Your task to perform on an android device: Go to network settings Image 0: 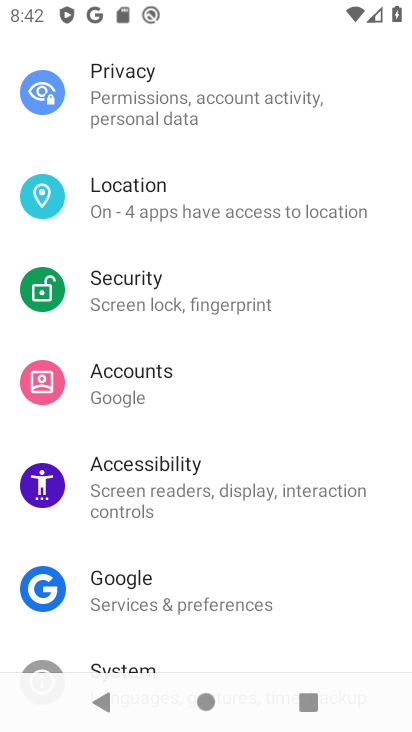
Step 0: drag from (192, 183) to (139, 609)
Your task to perform on an android device: Go to network settings Image 1: 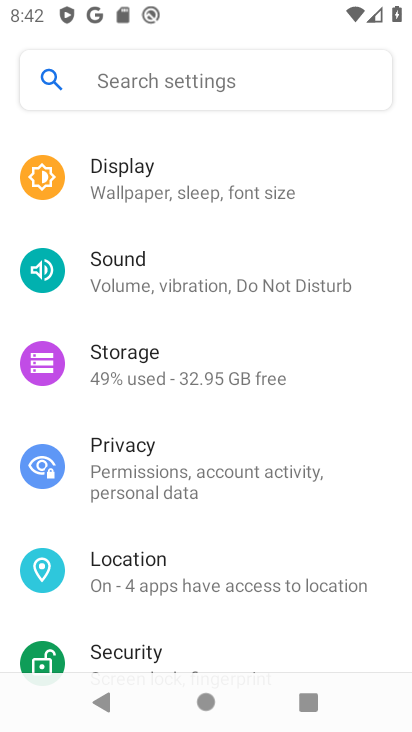
Step 1: click (186, 215)
Your task to perform on an android device: Go to network settings Image 2: 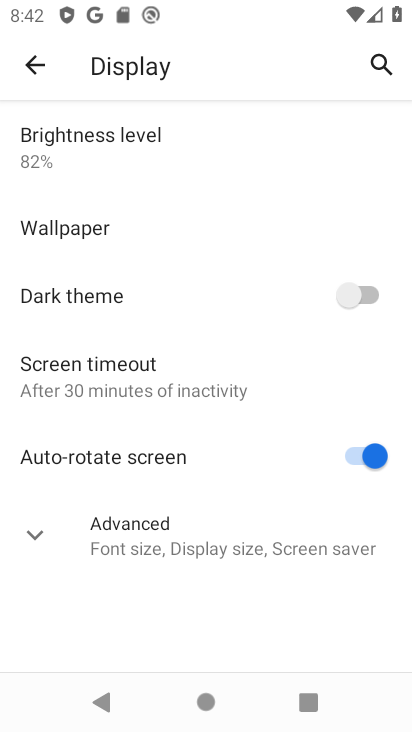
Step 2: drag from (184, 273) to (184, 308)
Your task to perform on an android device: Go to network settings Image 3: 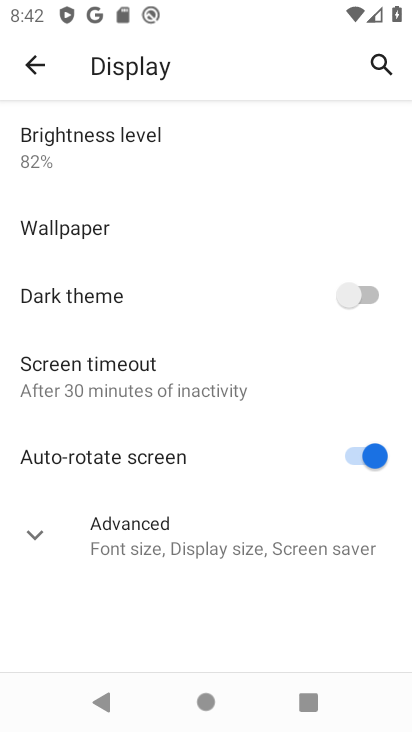
Step 3: click (20, 69)
Your task to perform on an android device: Go to network settings Image 4: 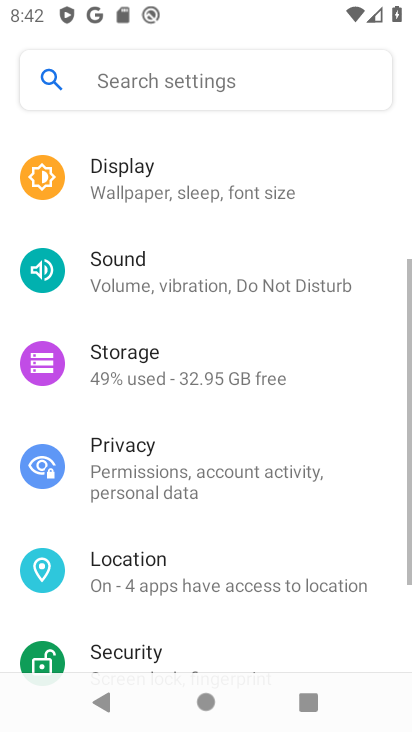
Step 4: drag from (237, 198) to (224, 372)
Your task to perform on an android device: Go to network settings Image 5: 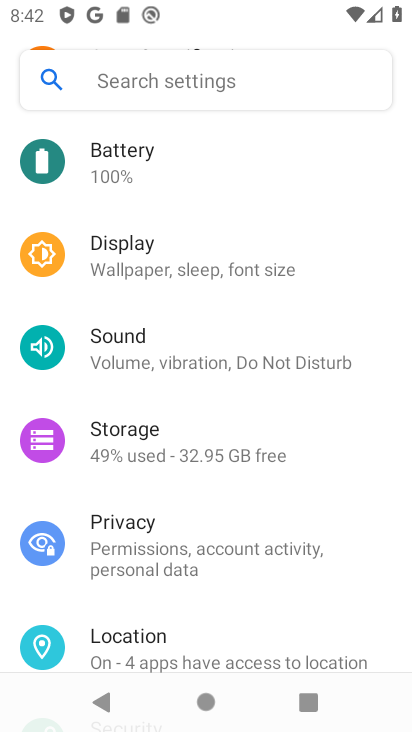
Step 5: drag from (162, 219) to (172, 561)
Your task to perform on an android device: Go to network settings Image 6: 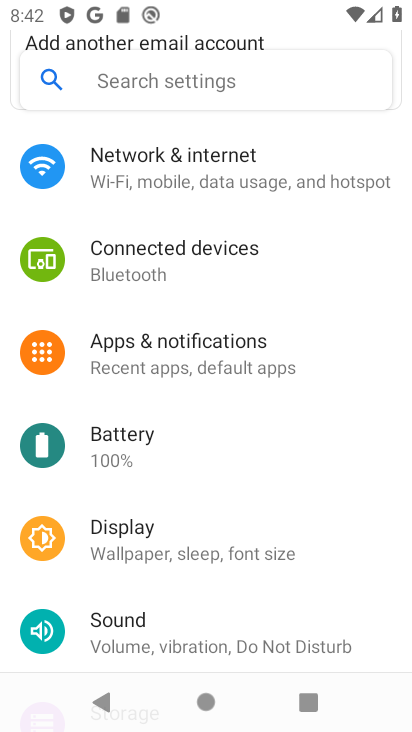
Step 6: click (207, 176)
Your task to perform on an android device: Go to network settings Image 7: 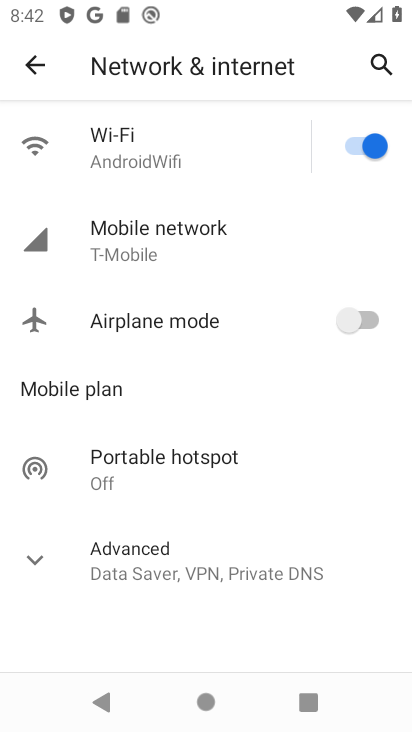
Step 7: task complete